Your task to perform on an android device: Go to notification settings Image 0: 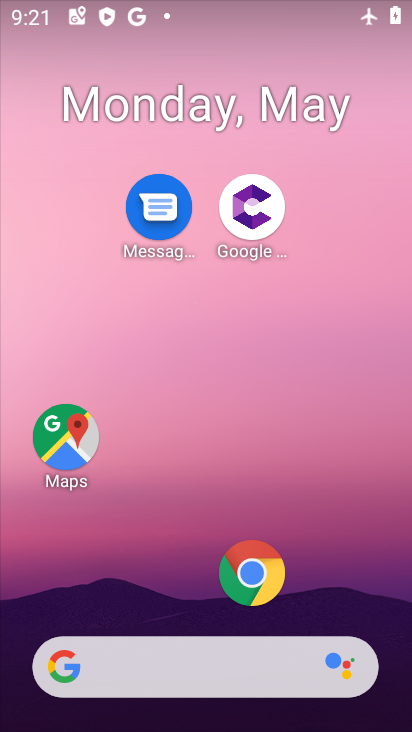
Step 0: drag from (204, 630) to (160, 212)
Your task to perform on an android device: Go to notification settings Image 1: 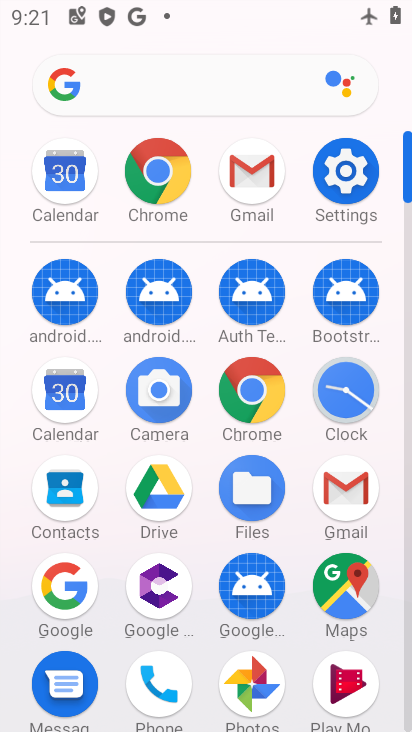
Step 1: click (333, 184)
Your task to perform on an android device: Go to notification settings Image 2: 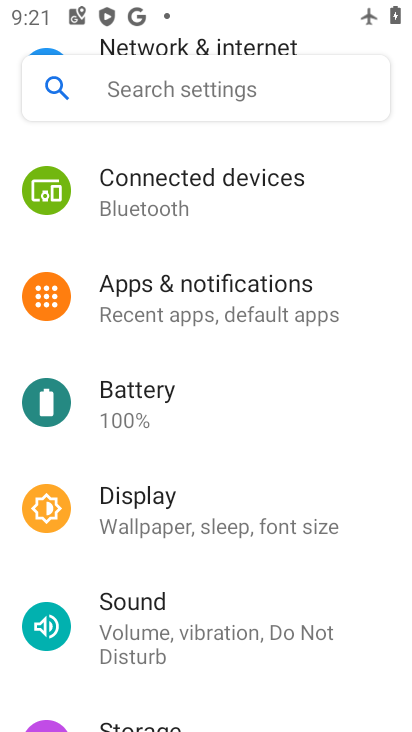
Step 2: click (273, 296)
Your task to perform on an android device: Go to notification settings Image 3: 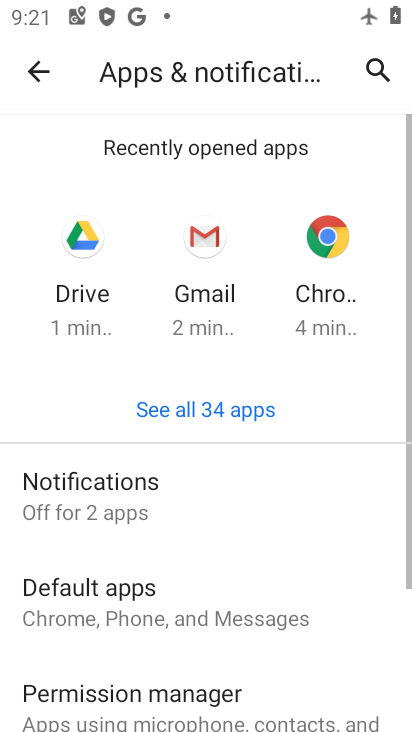
Step 3: click (179, 488)
Your task to perform on an android device: Go to notification settings Image 4: 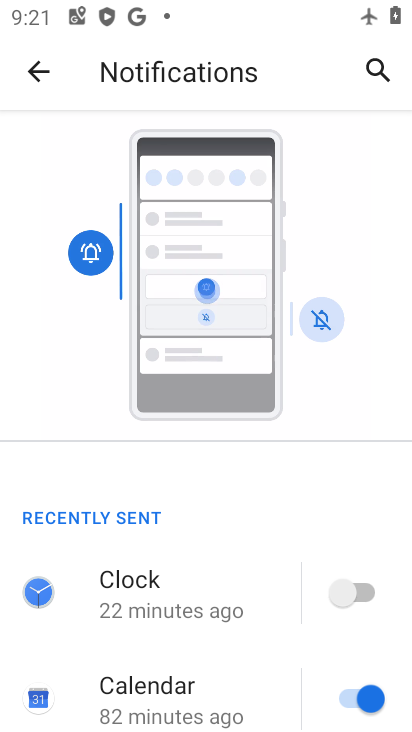
Step 4: task complete